Your task to perform on an android device: toggle location history Image 0: 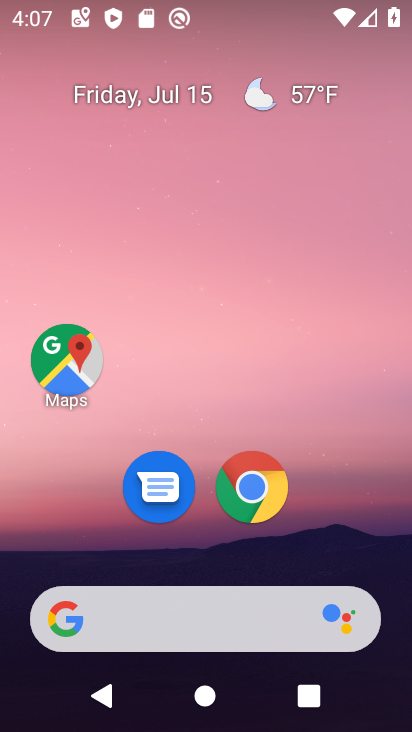
Step 0: drag from (193, 598) to (196, 316)
Your task to perform on an android device: toggle location history Image 1: 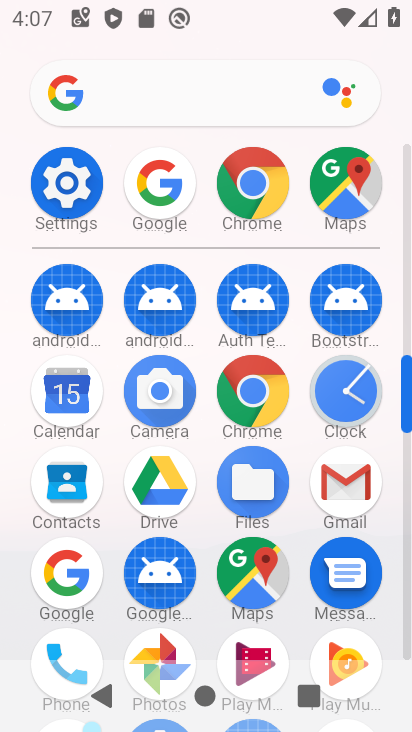
Step 1: click (80, 190)
Your task to perform on an android device: toggle location history Image 2: 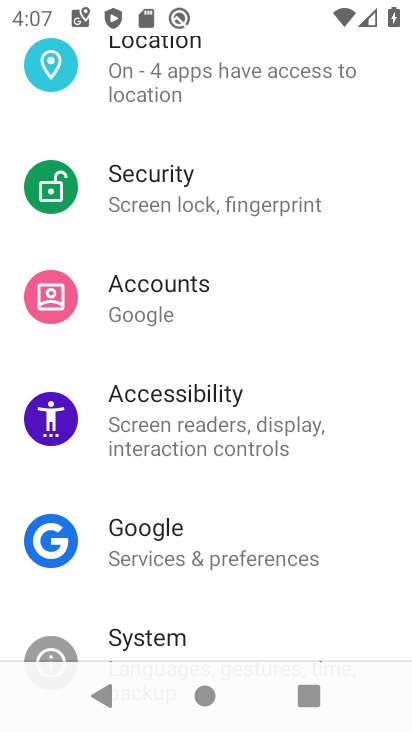
Step 2: drag from (165, 574) to (200, 212)
Your task to perform on an android device: toggle location history Image 3: 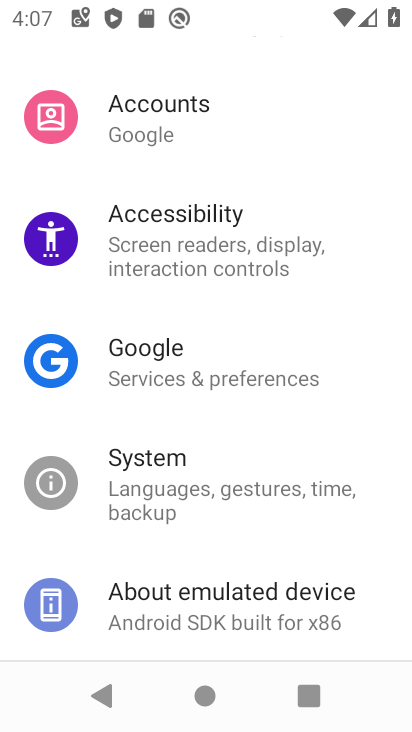
Step 3: drag from (210, 365) to (157, 719)
Your task to perform on an android device: toggle location history Image 4: 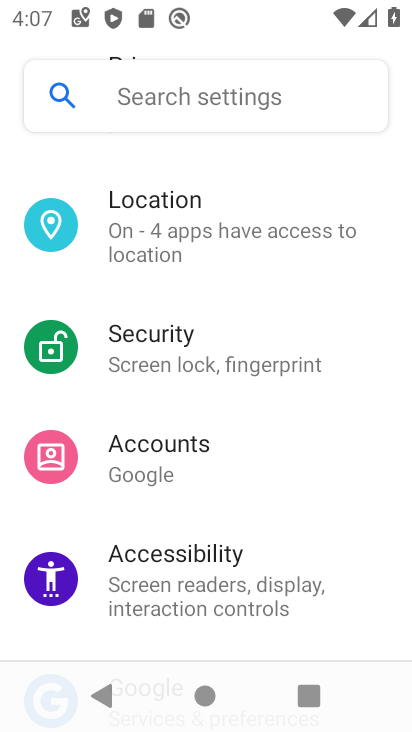
Step 4: click (194, 238)
Your task to perform on an android device: toggle location history Image 5: 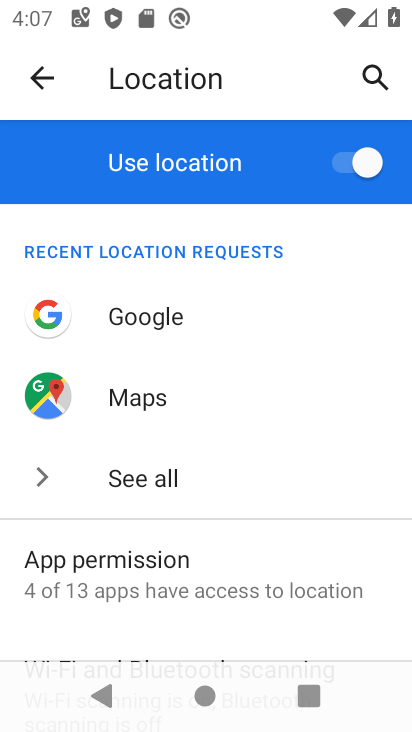
Step 5: drag from (212, 557) to (192, 240)
Your task to perform on an android device: toggle location history Image 6: 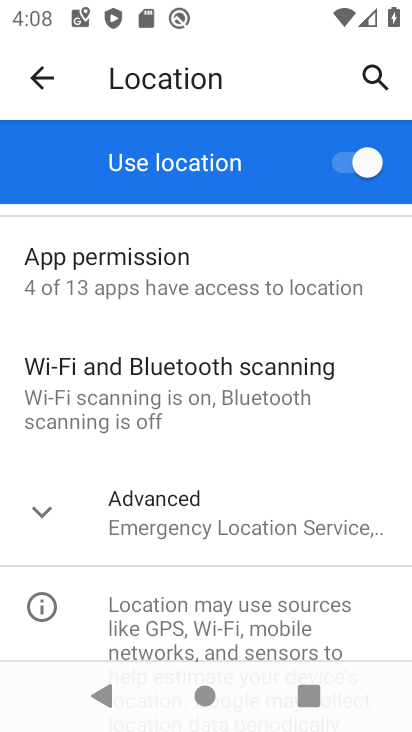
Step 6: click (154, 525)
Your task to perform on an android device: toggle location history Image 7: 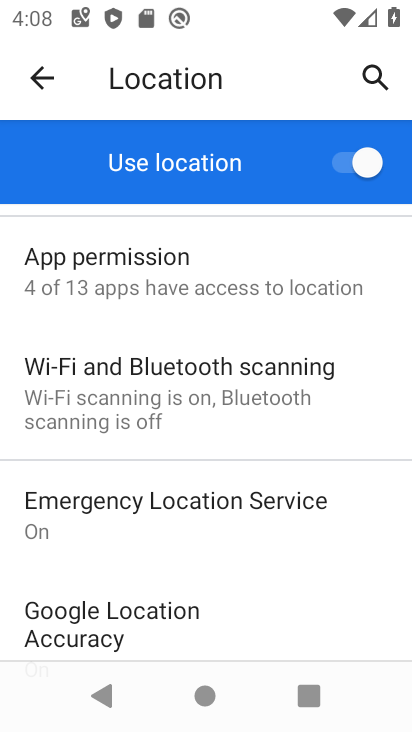
Step 7: drag from (146, 582) to (162, 277)
Your task to perform on an android device: toggle location history Image 8: 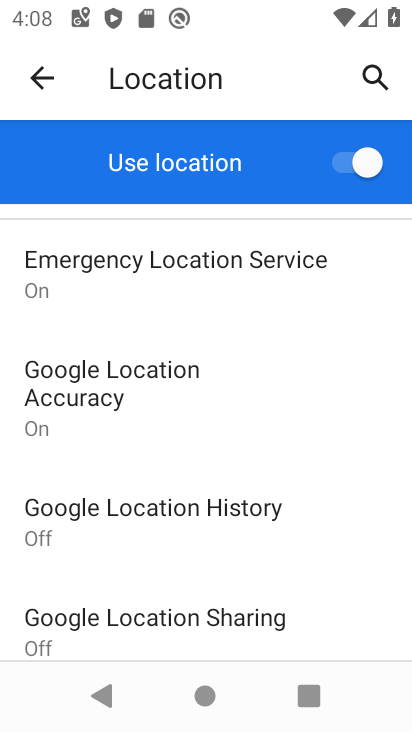
Step 8: click (170, 530)
Your task to perform on an android device: toggle location history Image 9: 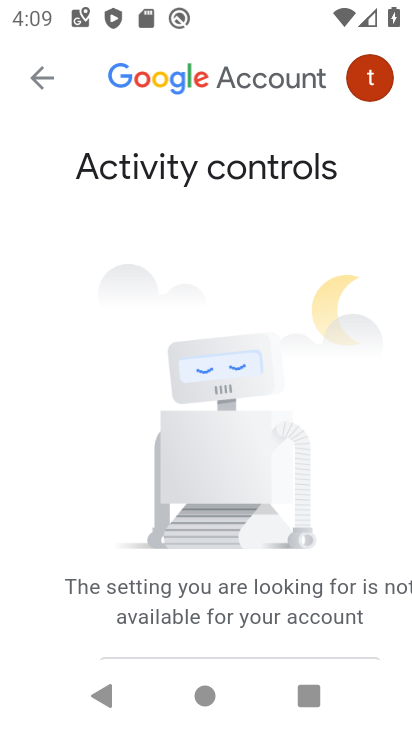
Step 9: task complete